Your task to perform on an android device: Open Google Maps and go to "Timeline" Image 0: 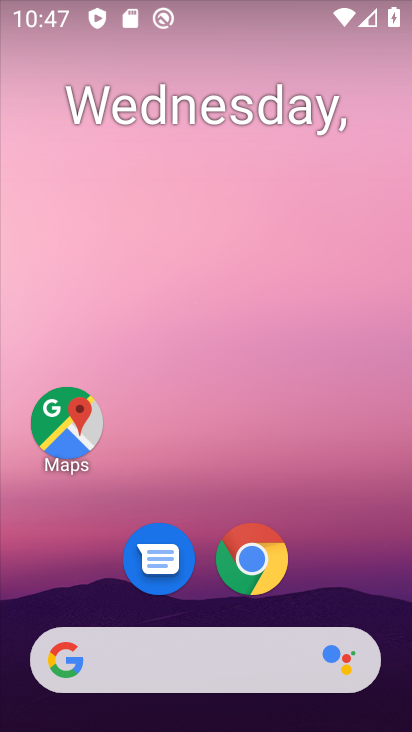
Step 0: drag from (391, 625) to (313, 343)
Your task to perform on an android device: Open Google Maps and go to "Timeline" Image 1: 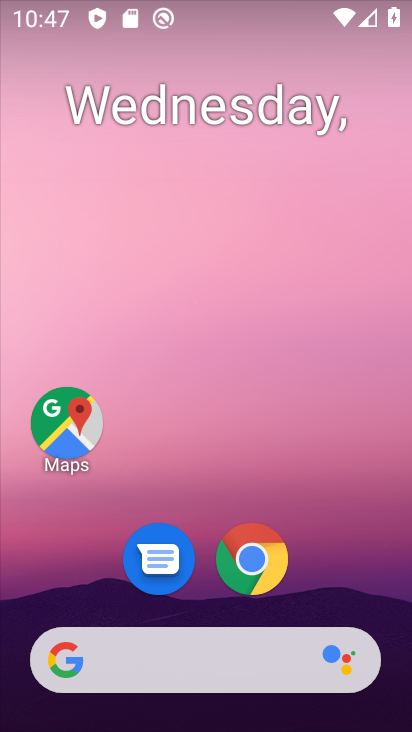
Step 1: click (89, 446)
Your task to perform on an android device: Open Google Maps and go to "Timeline" Image 2: 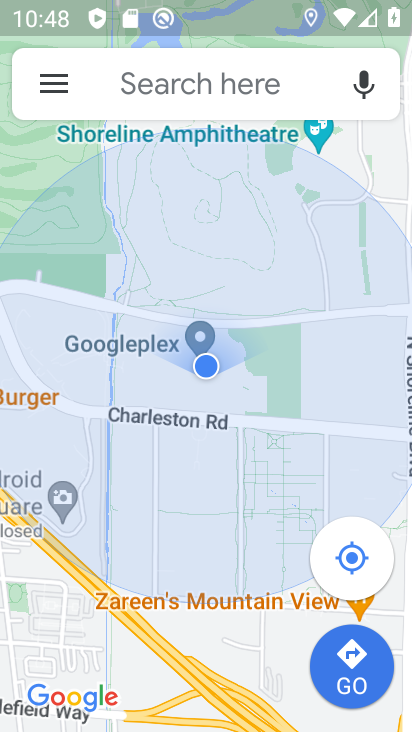
Step 2: click (57, 98)
Your task to perform on an android device: Open Google Maps and go to "Timeline" Image 3: 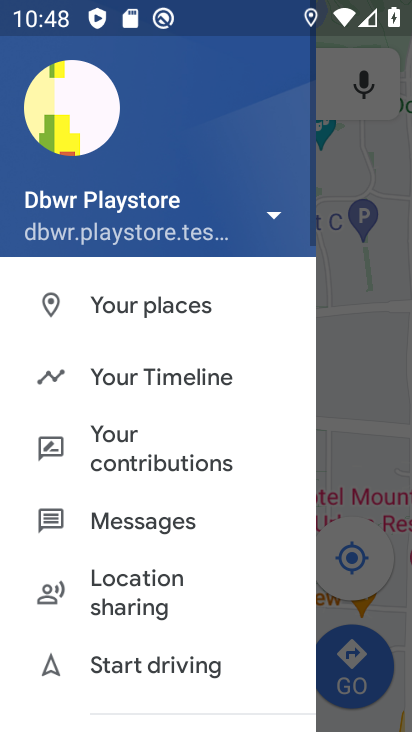
Step 3: click (174, 387)
Your task to perform on an android device: Open Google Maps and go to "Timeline" Image 4: 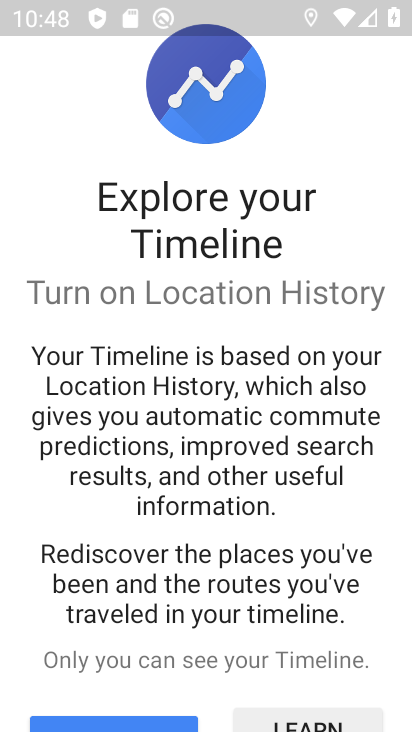
Step 4: drag from (365, 600) to (295, 167)
Your task to perform on an android device: Open Google Maps and go to "Timeline" Image 5: 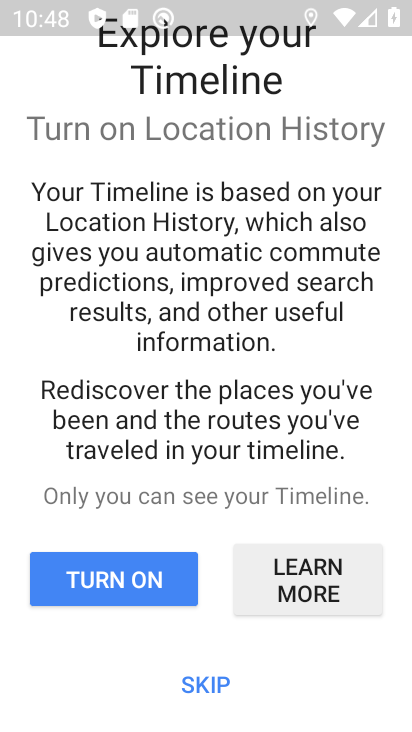
Step 5: click (214, 688)
Your task to perform on an android device: Open Google Maps and go to "Timeline" Image 6: 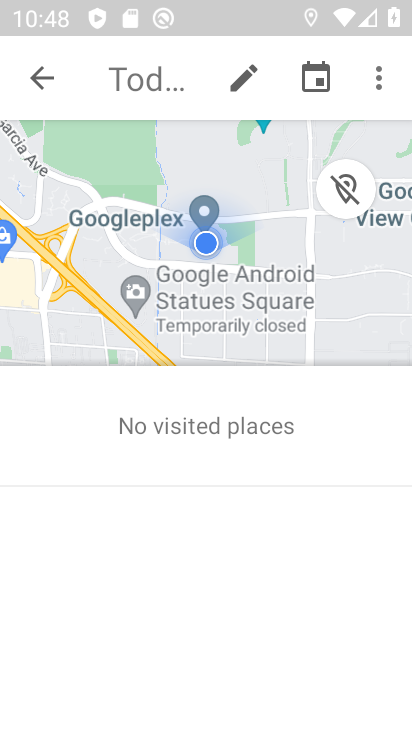
Step 6: task complete